Your task to perform on an android device: Check the weather Image 0: 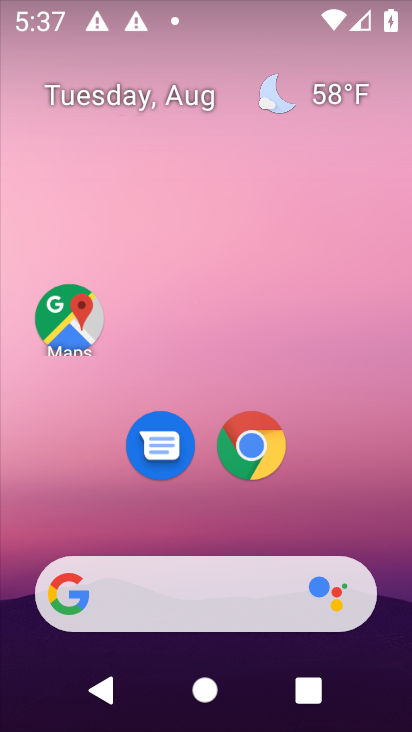
Step 0: click (182, 596)
Your task to perform on an android device: Check the weather Image 1: 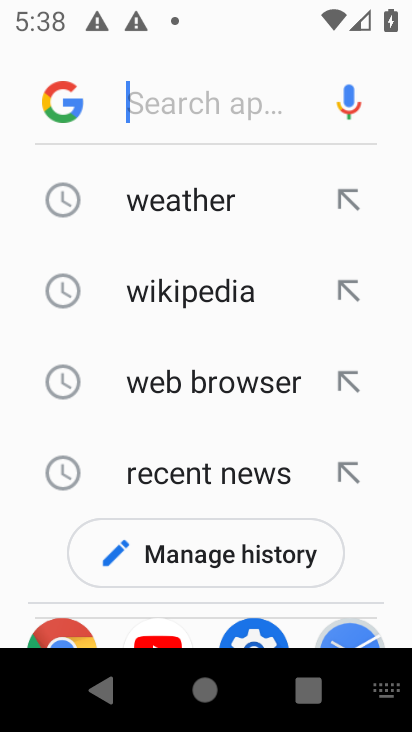
Step 1: click (186, 189)
Your task to perform on an android device: Check the weather Image 2: 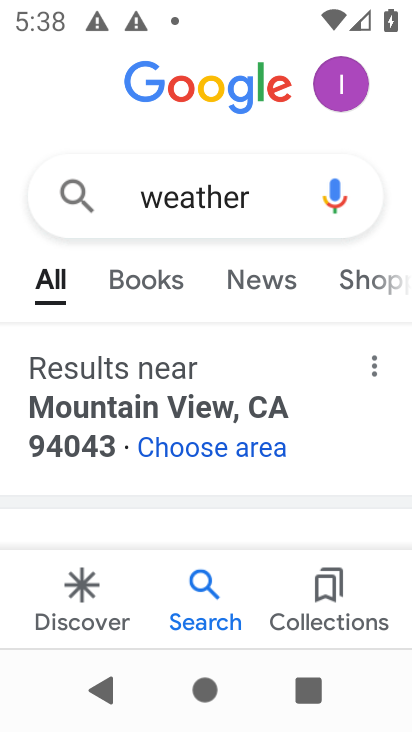
Step 2: task complete